Your task to perform on an android device: toggle pop-ups in chrome Image 0: 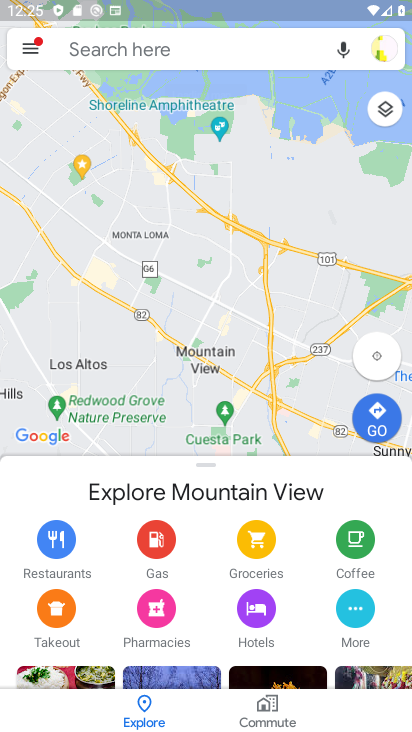
Step 0: press home button
Your task to perform on an android device: toggle pop-ups in chrome Image 1: 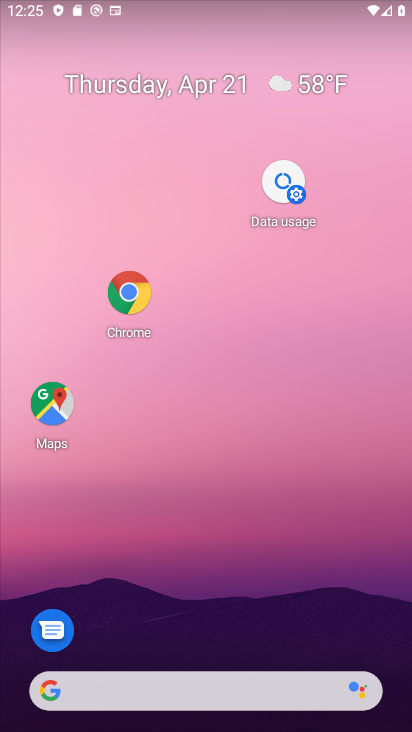
Step 1: click (122, 283)
Your task to perform on an android device: toggle pop-ups in chrome Image 2: 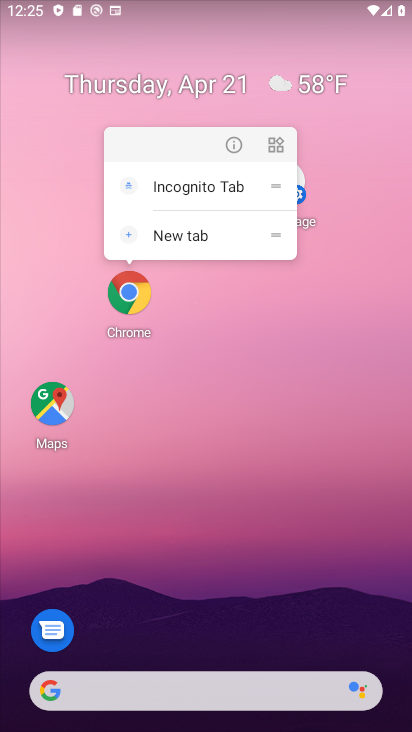
Step 2: click (132, 304)
Your task to perform on an android device: toggle pop-ups in chrome Image 3: 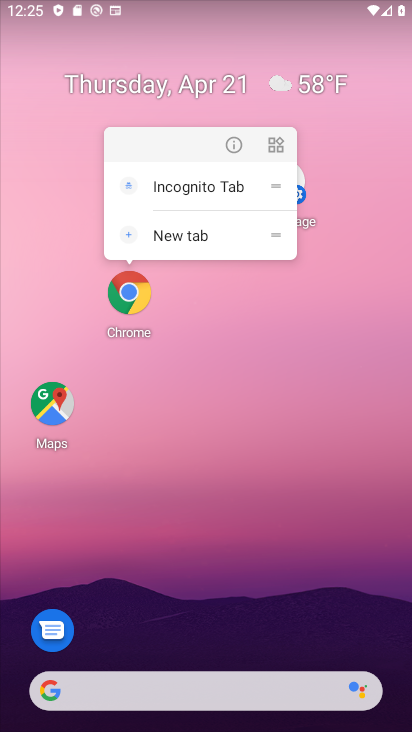
Step 3: click (129, 295)
Your task to perform on an android device: toggle pop-ups in chrome Image 4: 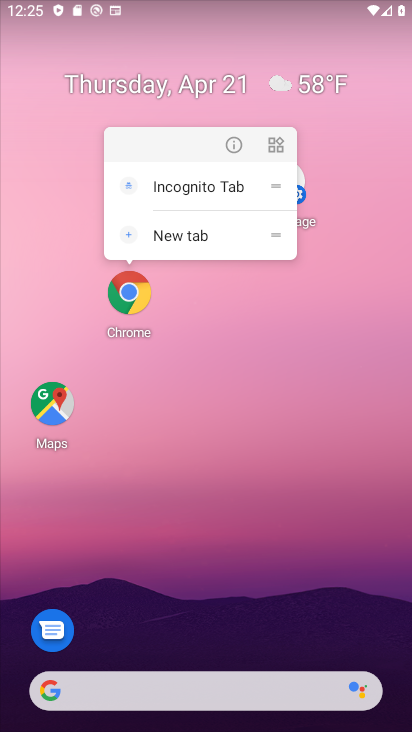
Step 4: click (126, 294)
Your task to perform on an android device: toggle pop-ups in chrome Image 5: 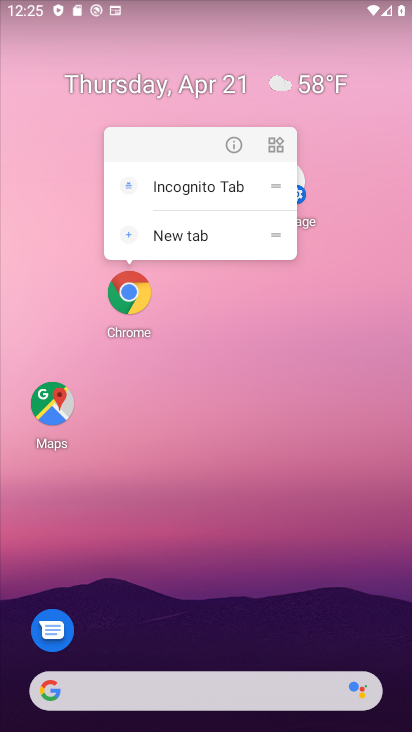
Step 5: click (126, 294)
Your task to perform on an android device: toggle pop-ups in chrome Image 6: 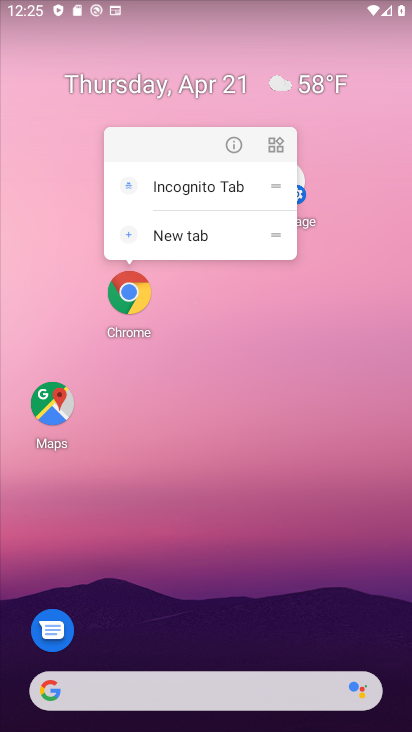
Step 6: click (126, 294)
Your task to perform on an android device: toggle pop-ups in chrome Image 7: 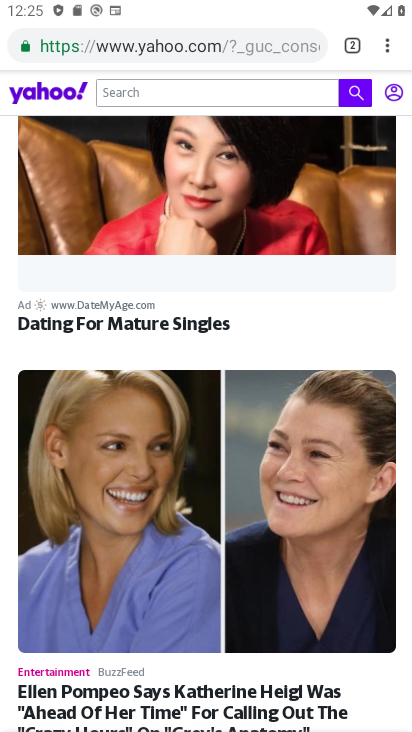
Step 7: click (352, 48)
Your task to perform on an android device: toggle pop-ups in chrome Image 8: 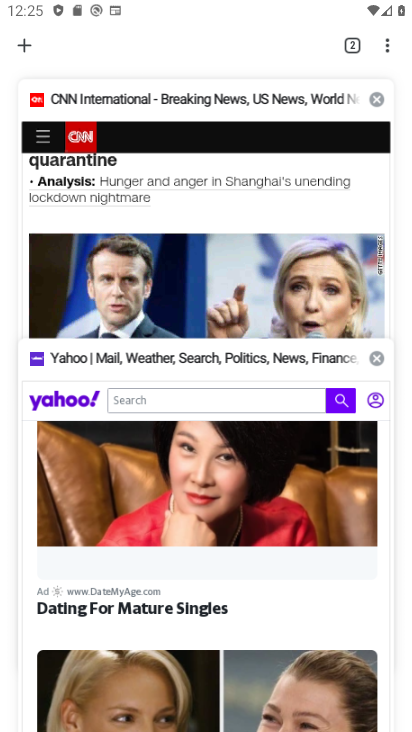
Step 8: click (371, 97)
Your task to perform on an android device: toggle pop-ups in chrome Image 9: 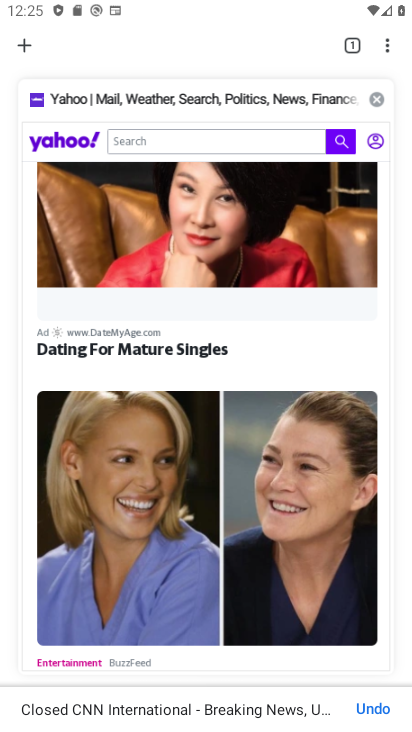
Step 9: click (371, 97)
Your task to perform on an android device: toggle pop-ups in chrome Image 10: 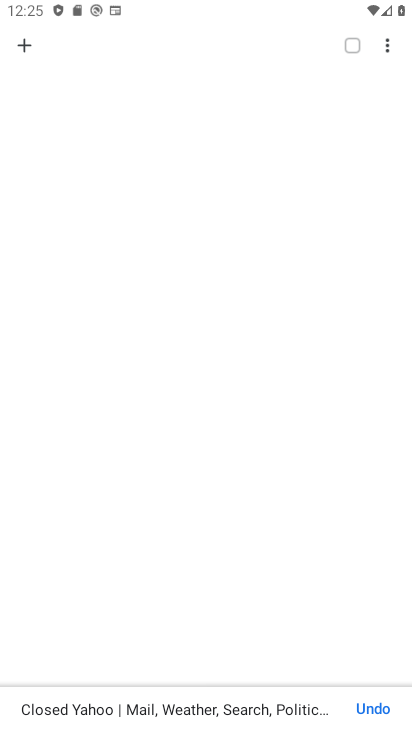
Step 10: click (21, 57)
Your task to perform on an android device: toggle pop-ups in chrome Image 11: 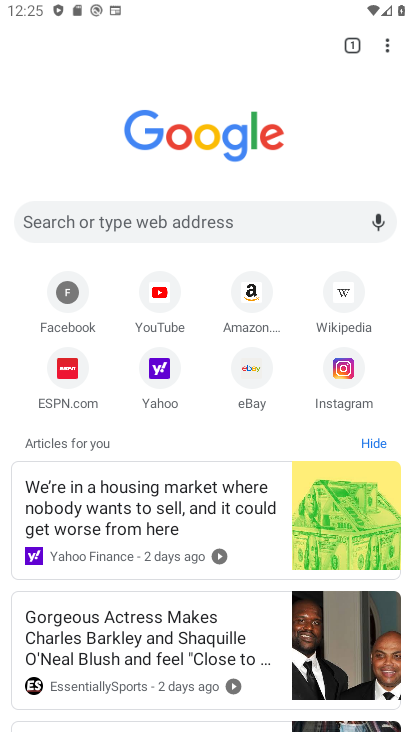
Step 11: click (390, 51)
Your task to perform on an android device: toggle pop-ups in chrome Image 12: 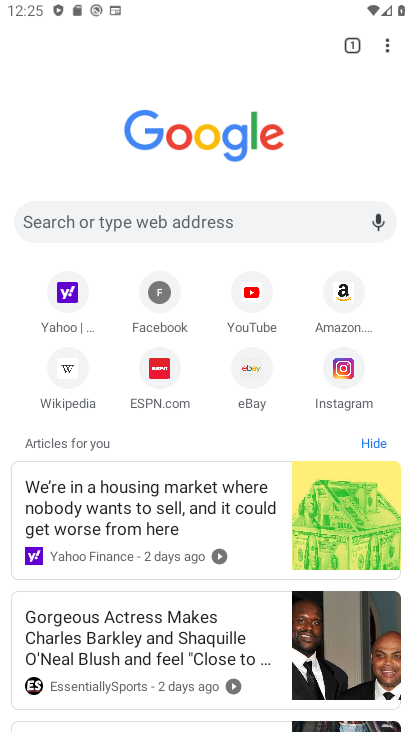
Step 12: click (390, 51)
Your task to perform on an android device: toggle pop-ups in chrome Image 13: 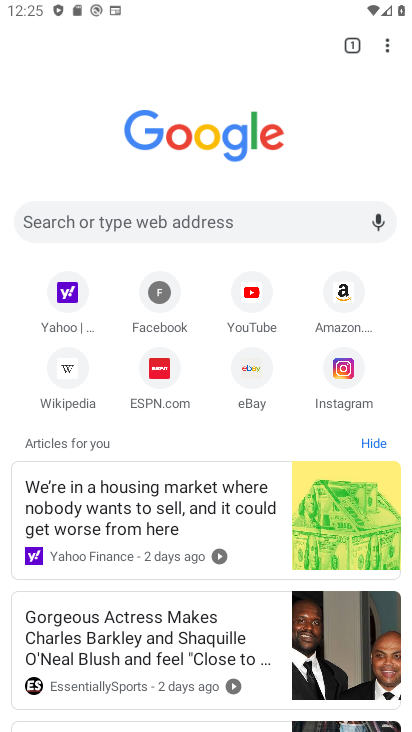
Step 13: click (390, 51)
Your task to perform on an android device: toggle pop-ups in chrome Image 14: 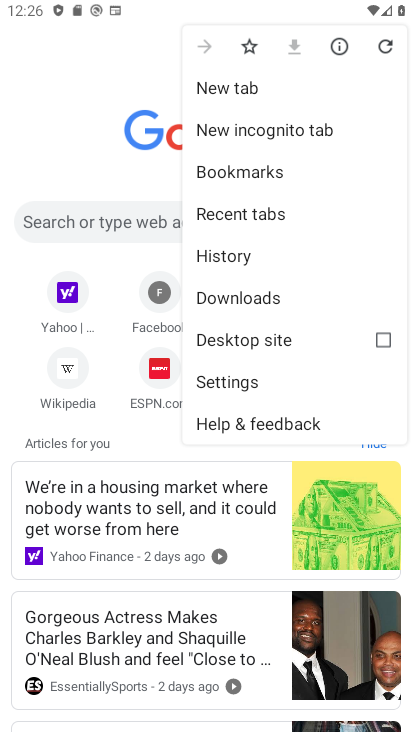
Step 14: click (250, 378)
Your task to perform on an android device: toggle pop-ups in chrome Image 15: 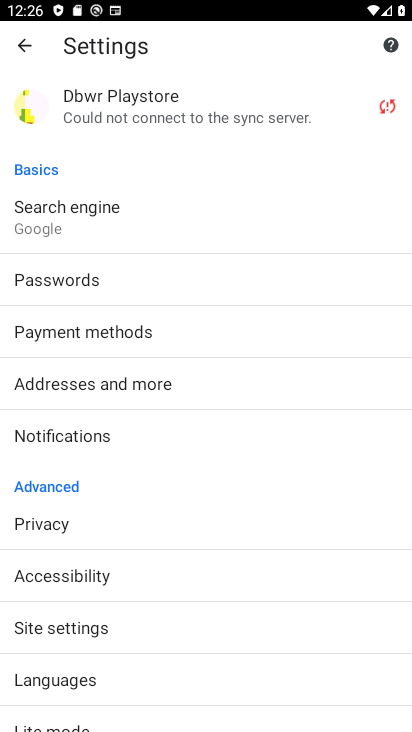
Step 15: click (90, 634)
Your task to perform on an android device: toggle pop-ups in chrome Image 16: 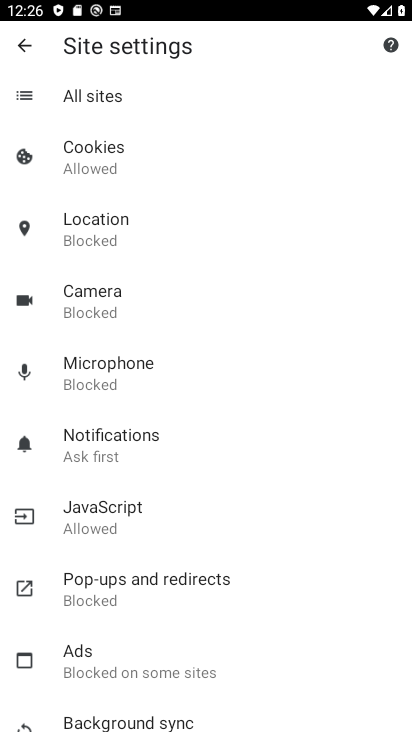
Step 16: click (128, 585)
Your task to perform on an android device: toggle pop-ups in chrome Image 17: 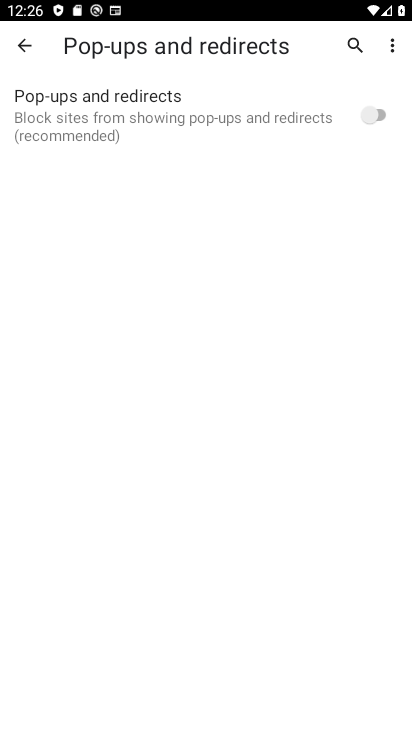
Step 17: click (379, 115)
Your task to perform on an android device: toggle pop-ups in chrome Image 18: 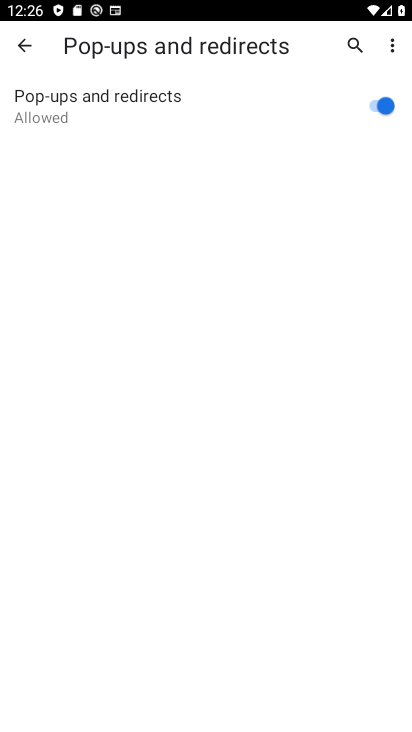
Step 18: task complete